Your task to perform on an android device: Go to Google maps Image 0: 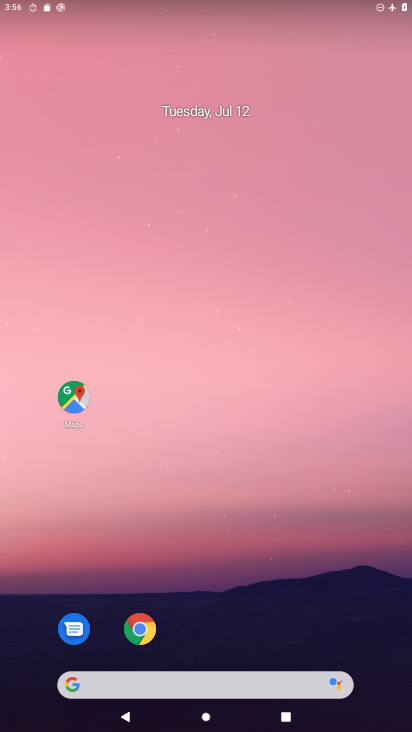
Step 0: drag from (216, 577) to (244, 30)
Your task to perform on an android device: Go to Google maps Image 1: 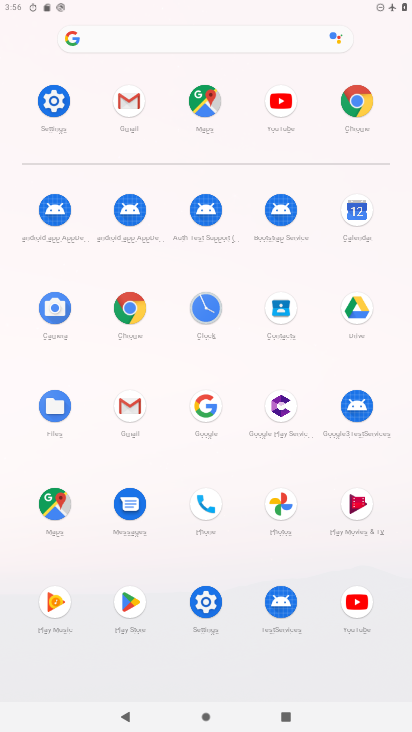
Step 1: click (46, 493)
Your task to perform on an android device: Go to Google maps Image 2: 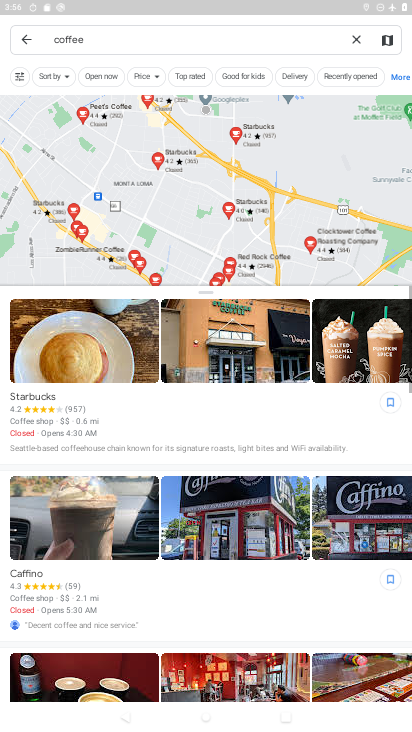
Step 2: click (23, 40)
Your task to perform on an android device: Go to Google maps Image 3: 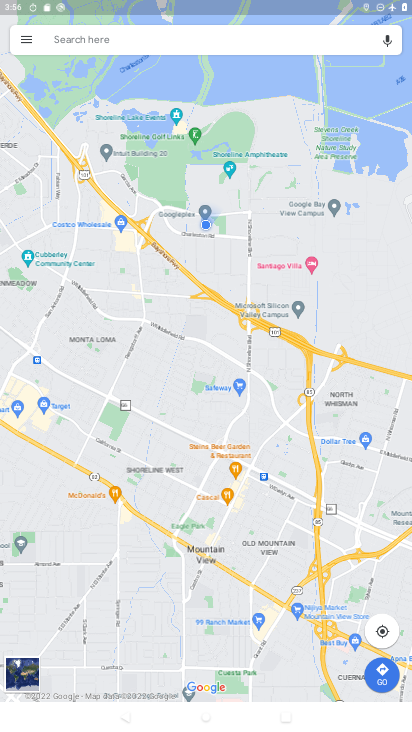
Step 3: task complete